Your task to perform on an android device: Open privacy settings Image 0: 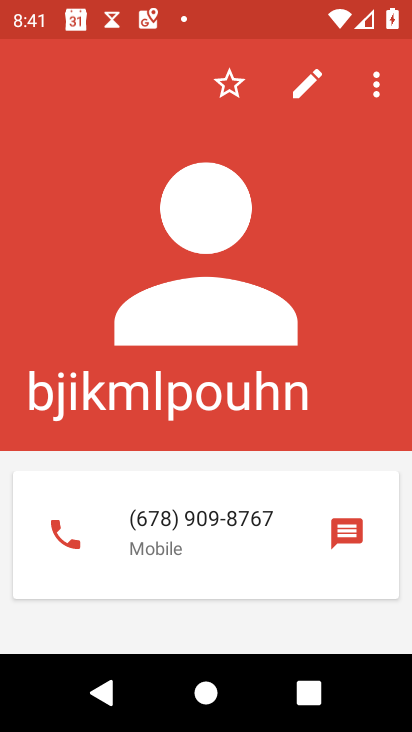
Step 0: press home button
Your task to perform on an android device: Open privacy settings Image 1: 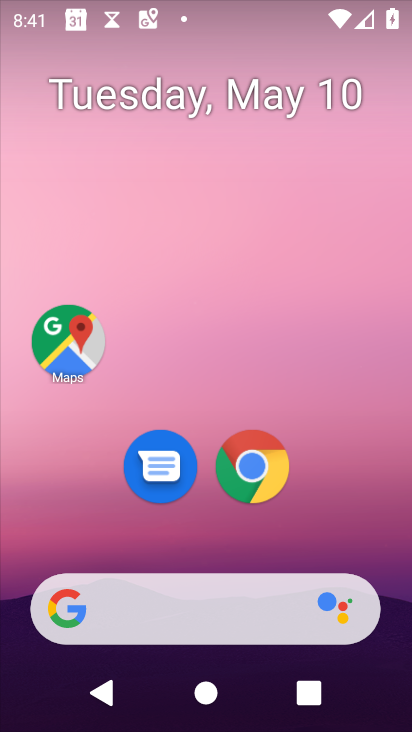
Step 1: click (263, 467)
Your task to perform on an android device: Open privacy settings Image 2: 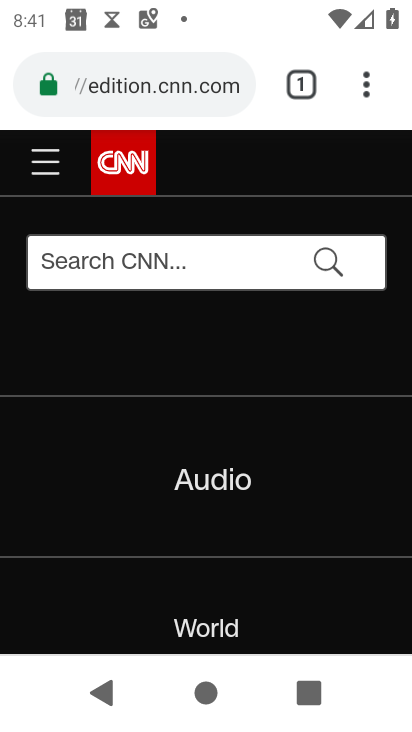
Step 2: click (354, 81)
Your task to perform on an android device: Open privacy settings Image 3: 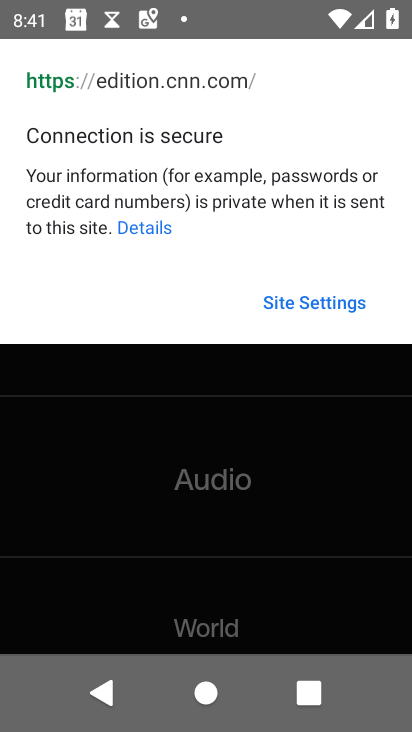
Step 3: click (332, 507)
Your task to perform on an android device: Open privacy settings Image 4: 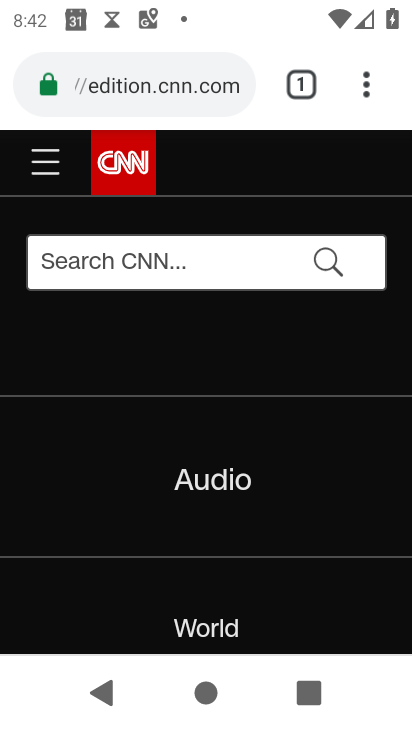
Step 4: click (370, 97)
Your task to perform on an android device: Open privacy settings Image 5: 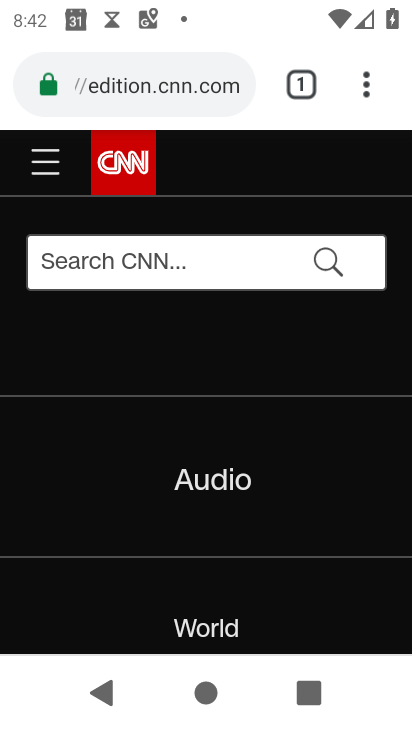
Step 5: click (369, 104)
Your task to perform on an android device: Open privacy settings Image 6: 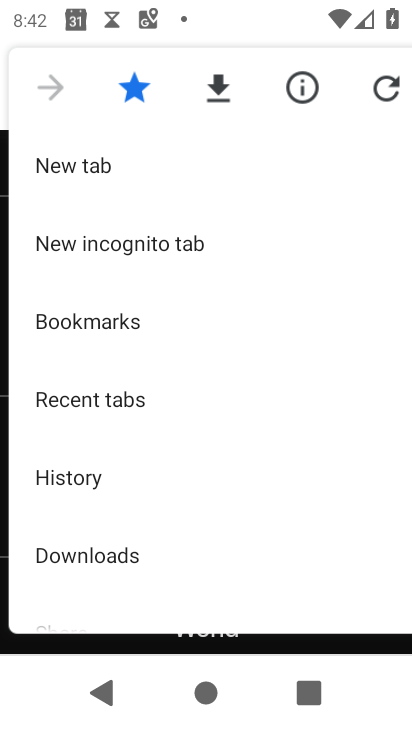
Step 6: drag from (253, 562) to (234, 418)
Your task to perform on an android device: Open privacy settings Image 7: 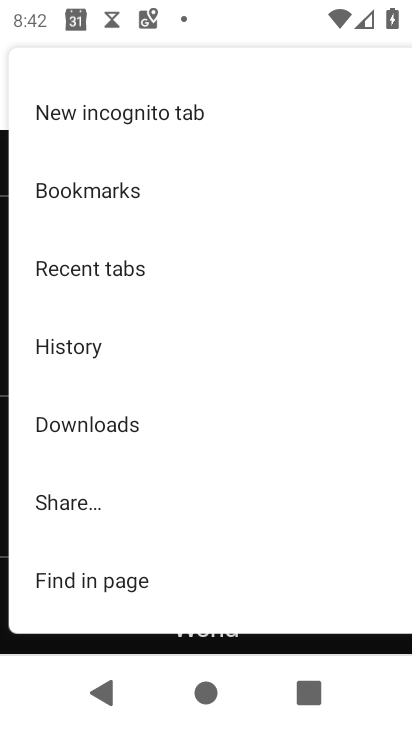
Step 7: drag from (185, 525) to (189, 445)
Your task to perform on an android device: Open privacy settings Image 8: 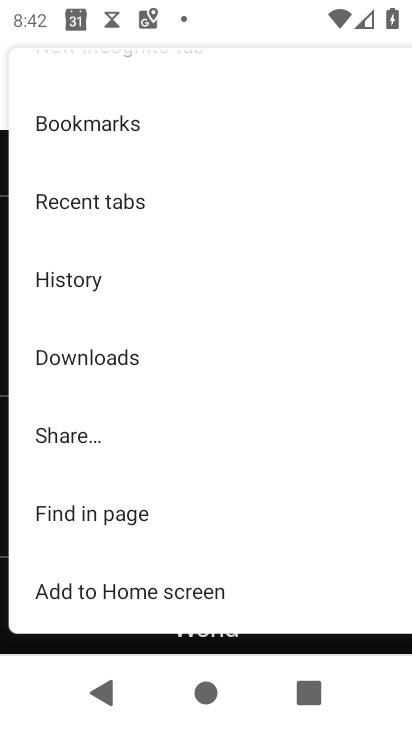
Step 8: drag from (189, 537) to (199, 443)
Your task to perform on an android device: Open privacy settings Image 9: 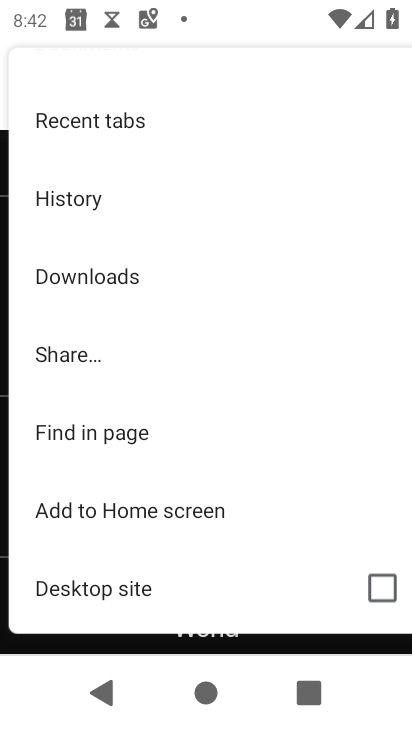
Step 9: drag from (195, 553) to (195, 454)
Your task to perform on an android device: Open privacy settings Image 10: 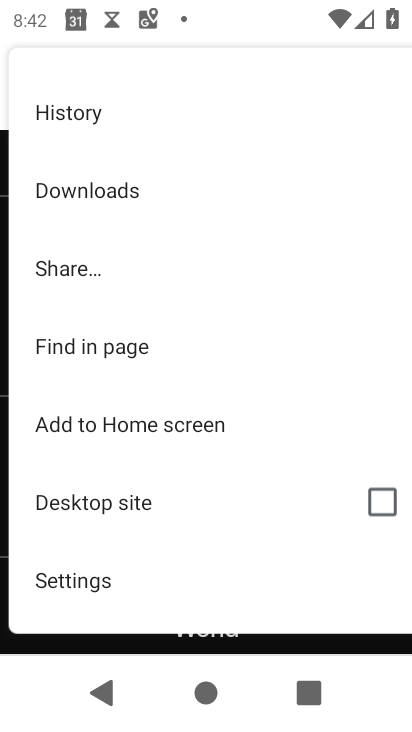
Step 10: click (190, 590)
Your task to perform on an android device: Open privacy settings Image 11: 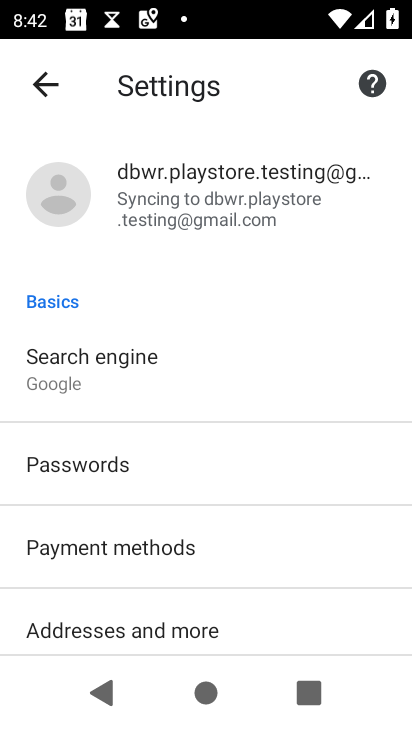
Step 11: drag from (186, 609) to (186, 495)
Your task to perform on an android device: Open privacy settings Image 12: 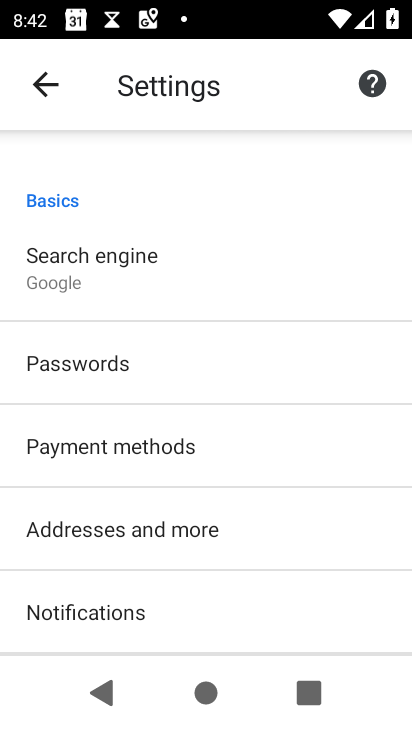
Step 12: drag from (190, 588) to (183, 514)
Your task to perform on an android device: Open privacy settings Image 13: 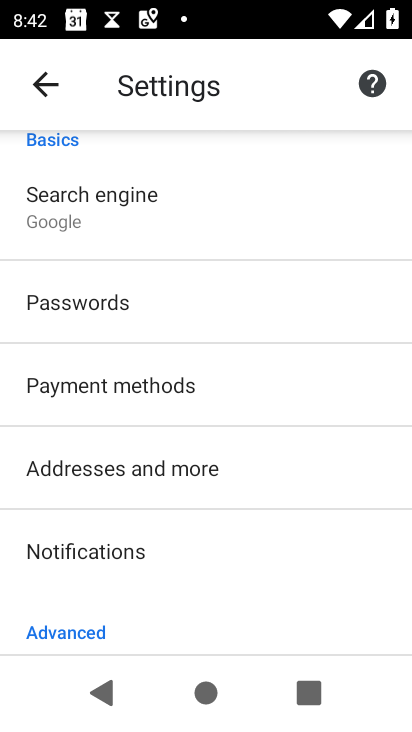
Step 13: drag from (183, 574) to (180, 523)
Your task to perform on an android device: Open privacy settings Image 14: 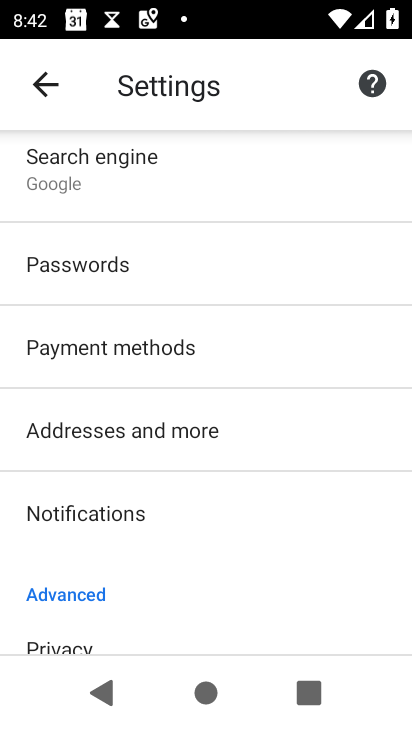
Step 14: drag from (180, 544) to (193, 457)
Your task to perform on an android device: Open privacy settings Image 15: 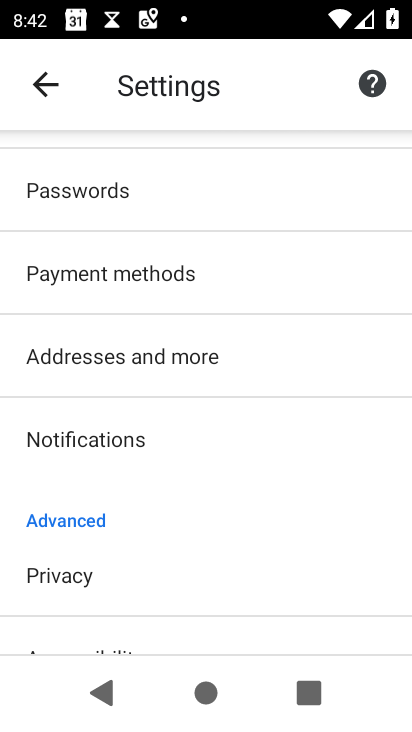
Step 15: click (206, 569)
Your task to perform on an android device: Open privacy settings Image 16: 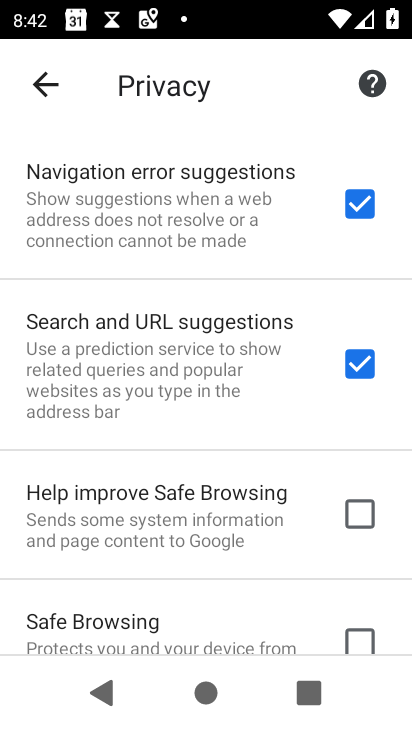
Step 16: task complete